Your task to perform on an android device: change timer sound Image 0: 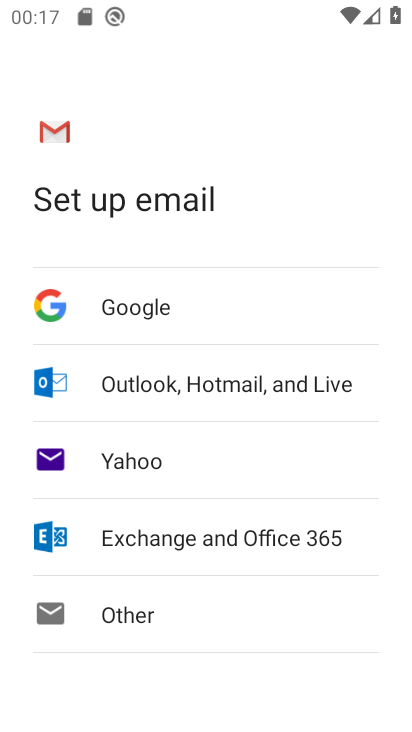
Step 0: press home button
Your task to perform on an android device: change timer sound Image 1: 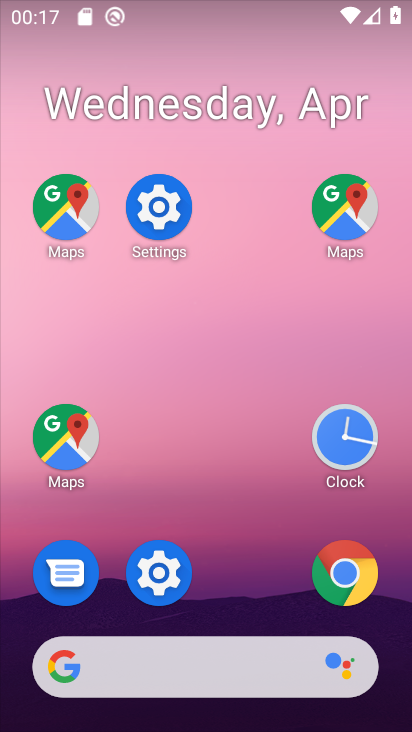
Step 1: drag from (80, 326) to (102, 257)
Your task to perform on an android device: change timer sound Image 2: 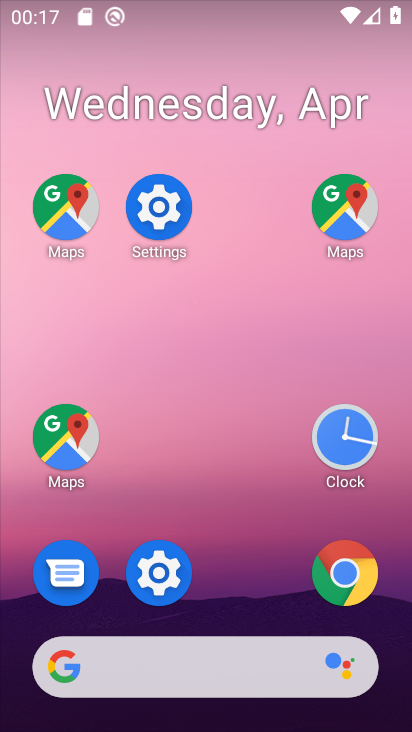
Step 2: drag from (170, 564) to (115, 216)
Your task to perform on an android device: change timer sound Image 3: 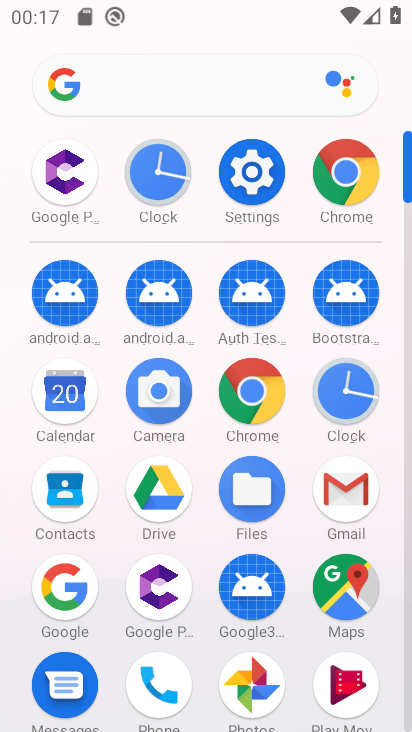
Step 3: click (333, 401)
Your task to perform on an android device: change timer sound Image 4: 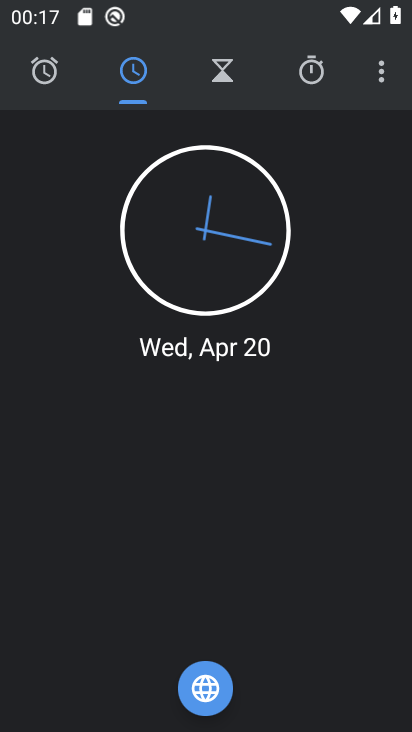
Step 4: click (217, 77)
Your task to perform on an android device: change timer sound Image 5: 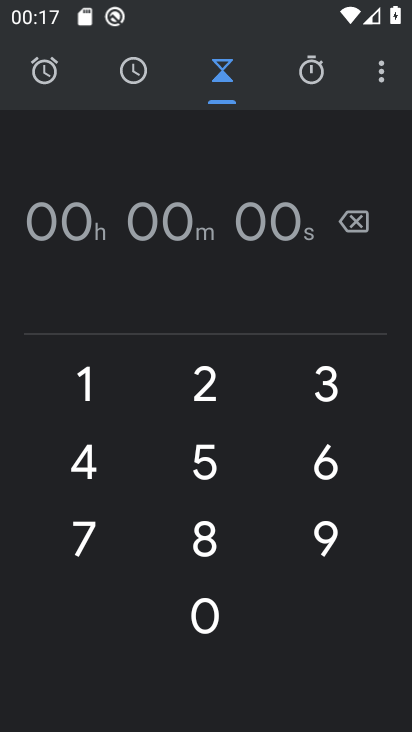
Step 5: click (215, 76)
Your task to perform on an android device: change timer sound Image 6: 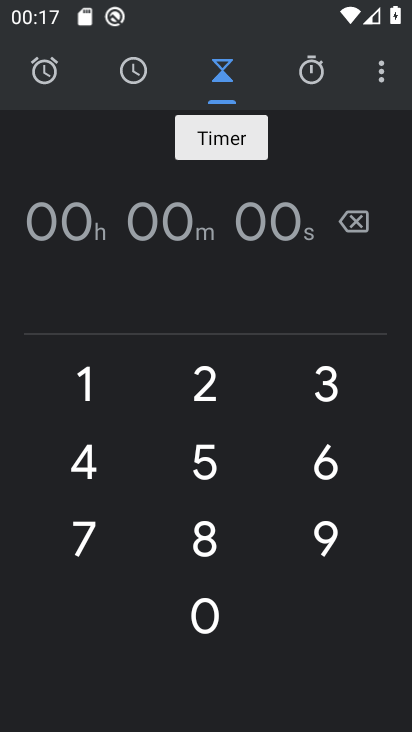
Step 6: click (214, 534)
Your task to perform on an android device: change timer sound Image 7: 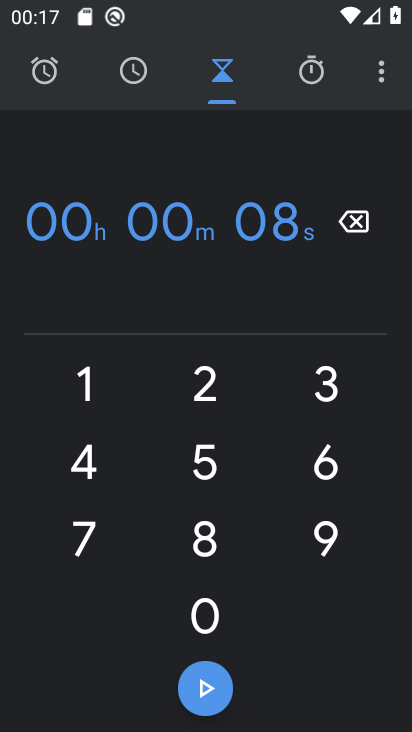
Step 7: click (206, 681)
Your task to perform on an android device: change timer sound Image 8: 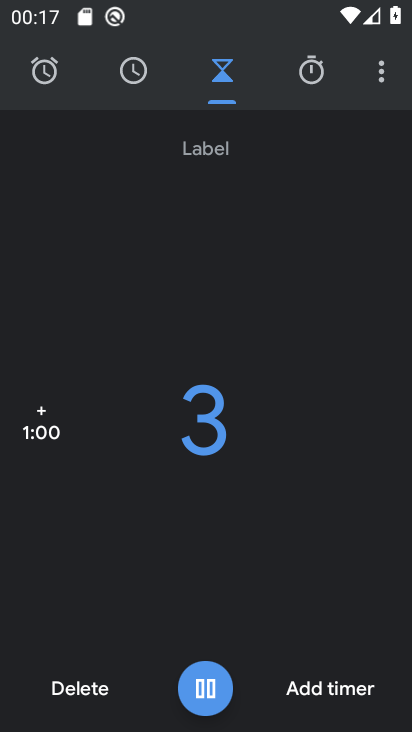
Step 8: click (206, 681)
Your task to perform on an android device: change timer sound Image 9: 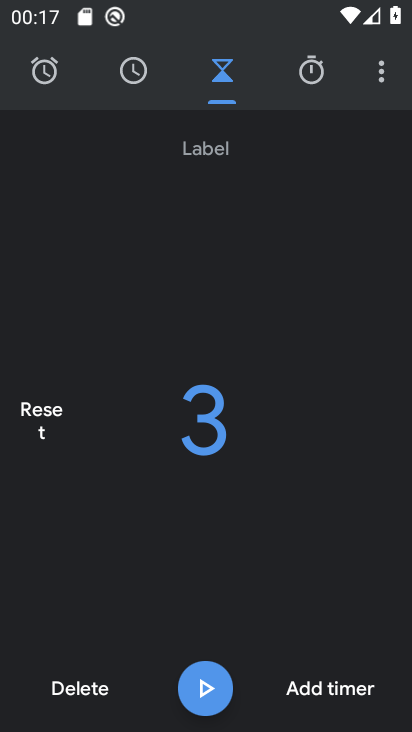
Step 9: click (206, 681)
Your task to perform on an android device: change timer sound Image 10: 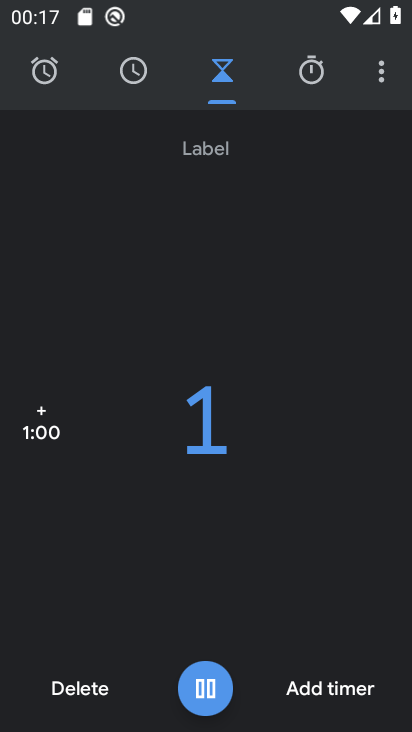
Step 10: task complete